Your task to perform on an android device: Open internet settings Image 0: 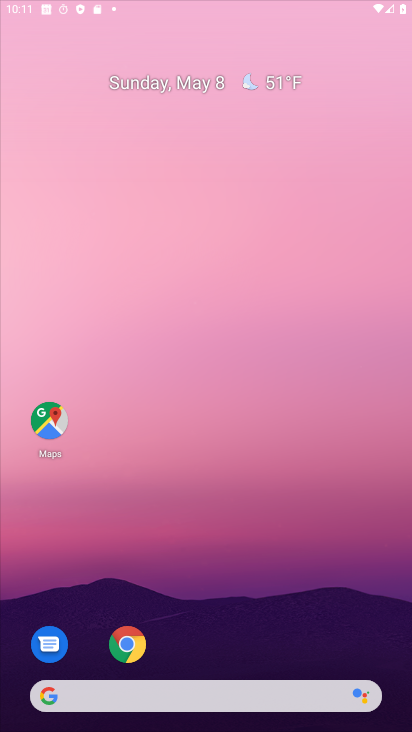
Step 0: drag from (228, 631) to (269, 251)
Your task to perform on an android device: Open internet settings Image 1: 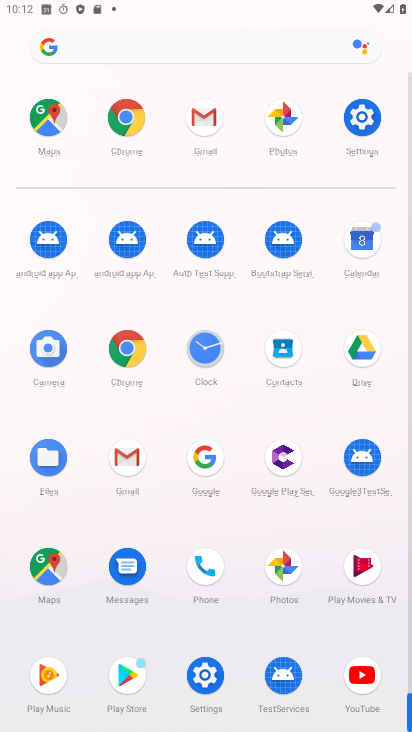
Step 1: click (205, 679)
Your task to perform on an android device: Open internet settings Image 2: 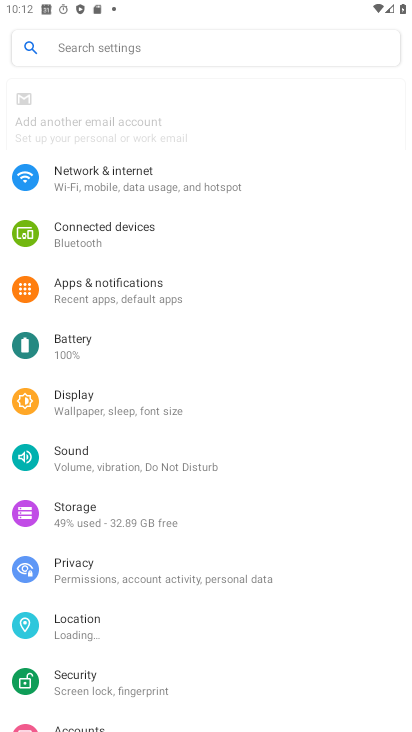
Step 2: click (206, 680)
Your task to perform on an android device: Open internet settings Image 3: 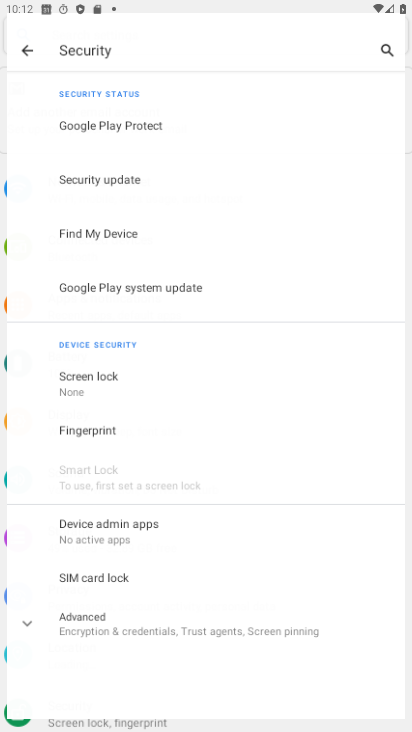
Step 3: drag from (206, 674) to (411, 422)
Your task to perform on an android device: Open internet settings Image 4: 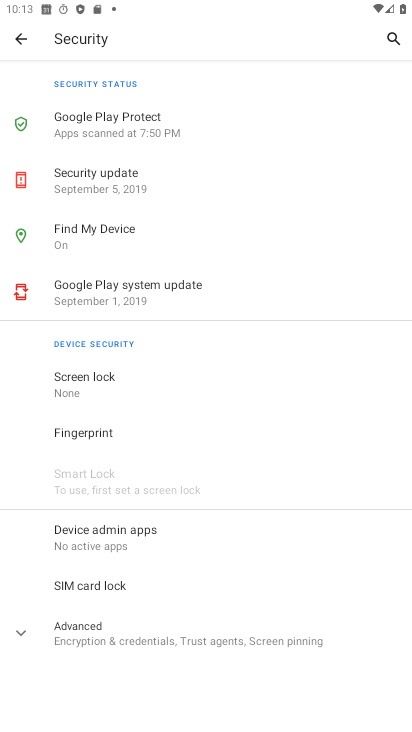
Step 4: drag from (133, 611) to (382, 299)
Your task to perform on an android device: Open internet settings Image 5: 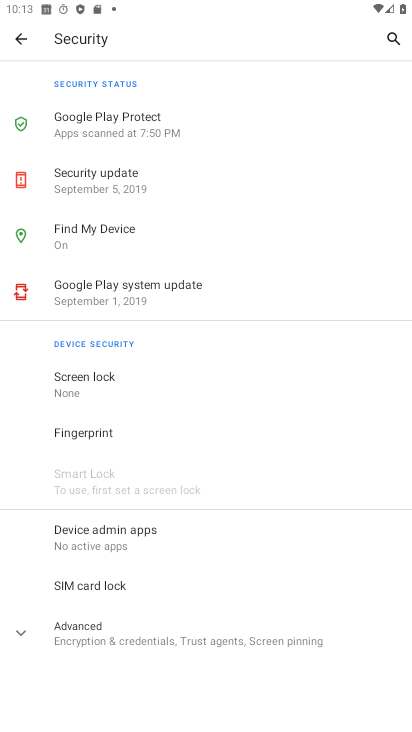
Step 5: click (26, 35)
Your task to perform on an android device: Open internet settings Image 6: 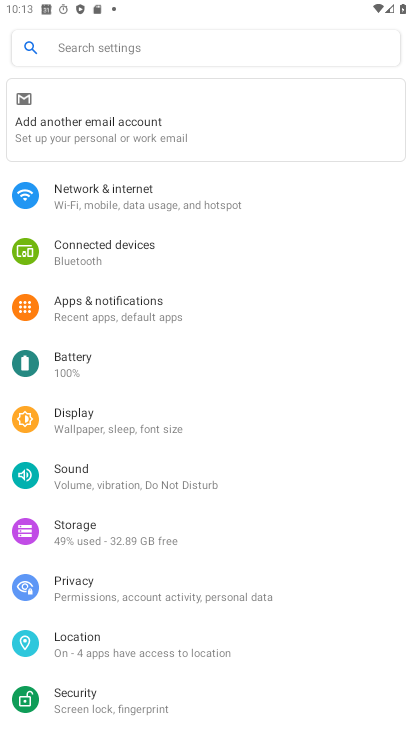
Step 6: click (87, 213)
Your task to perform on an android device: Open internet settings Image 7: 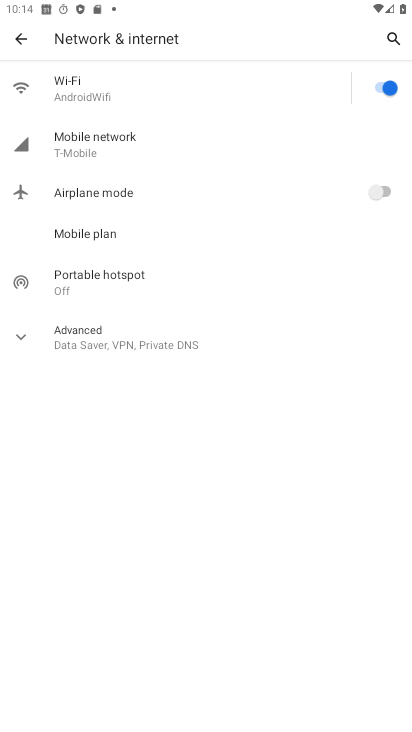
Step 7: click (94, 178)
Your task to perform on an android device: Open internet settings Image 8: 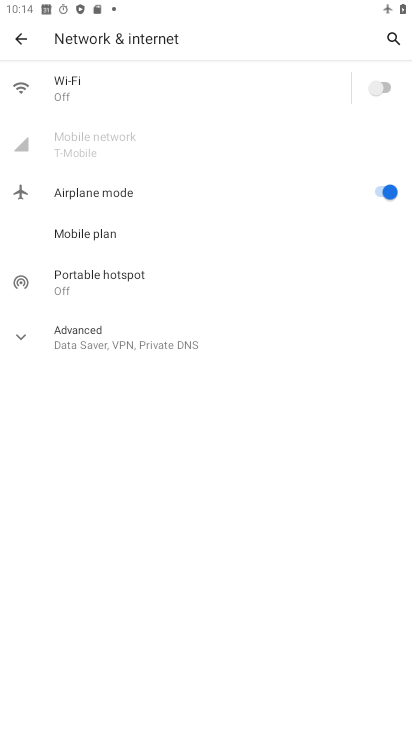
Step 8: click (99, 178)
Your task to perform on an android device: Open internet settings Image 9: 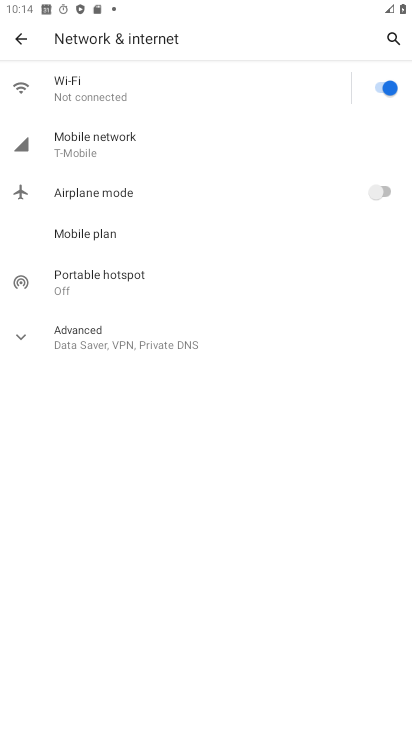
Step 9: click (176, 150)
Your task to perform on an android device: Open internet settings Image 10: 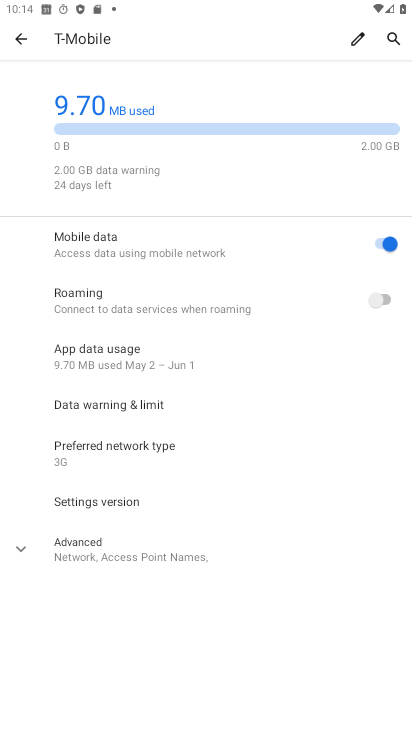
Step 10: task complete